Your task to perform on an android device: change the upload size in google photos Image 0: 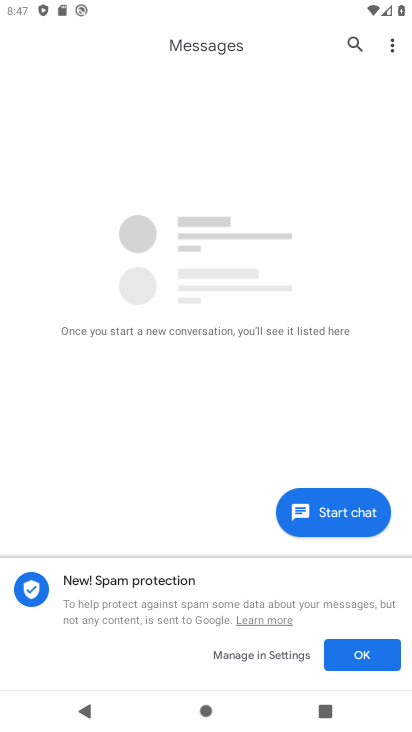
Step 0: drag from (184, 541) to (200, 331)
Your task to perform on an android device: change the upload size in google photos Image 1: 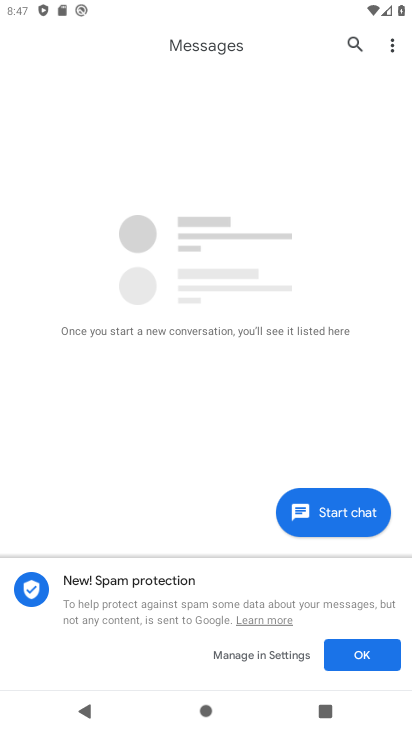
Step 1: drag from (194, 419) to (197, 275)
Your task to perform on an android device: change the upload size in google photos Image 2: 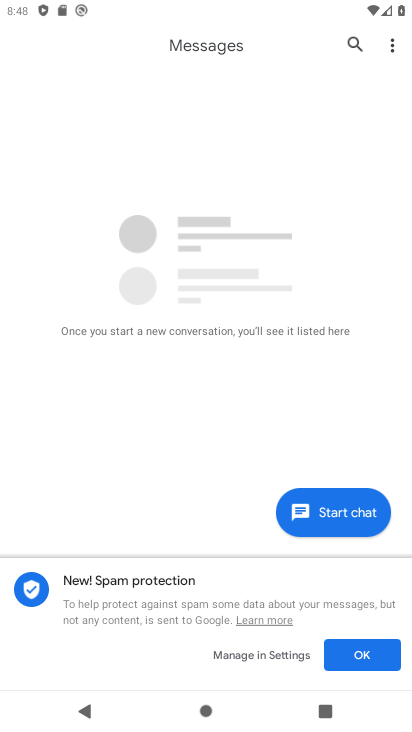
Step 2: press home button
Your task to perform on an android device: change the upload size in google photos Image 3: 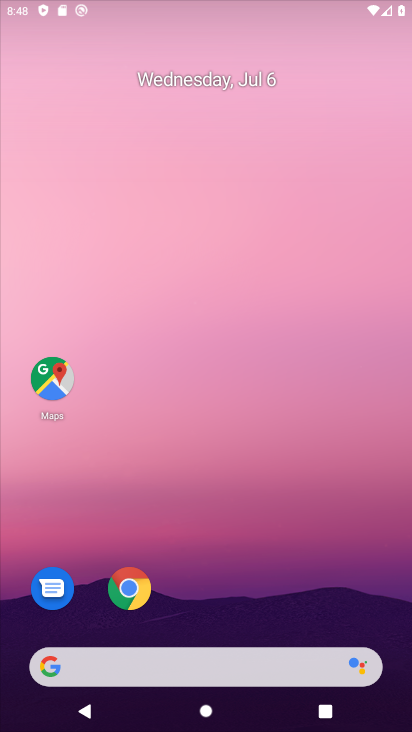
Step 3: drag from (176, 653) to (185, 13)
Your task to perform on an android device: change the upload size in google photos Image 4: 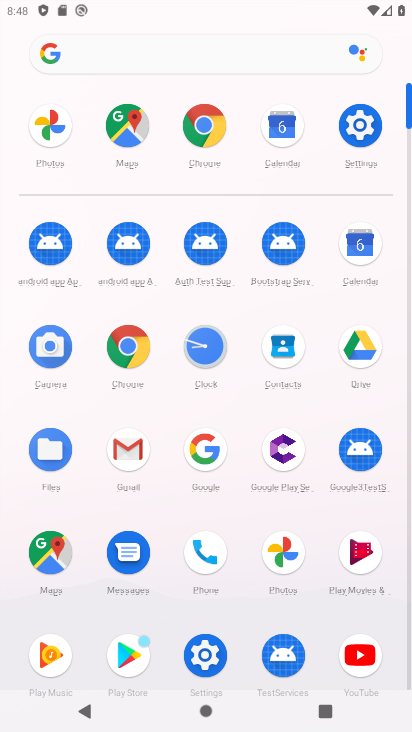
Step 4: drag from (222, 614) to (235, 242)
Your task to perform on an android device: change the upload size in google photos Image 5: 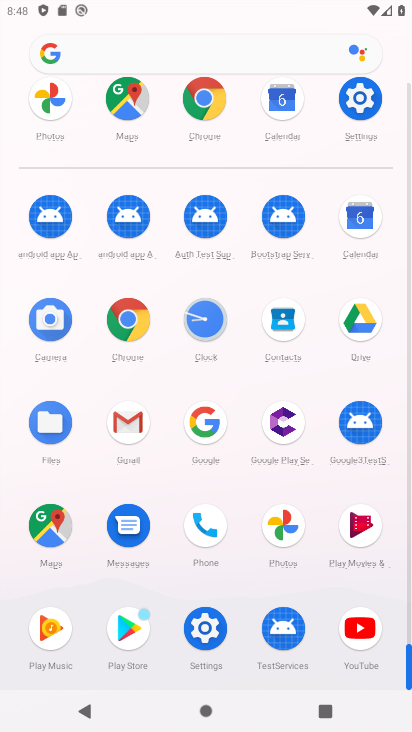
Step 5: click (287, 536)
Your task to perform on an android device: change the upload size in google photos Image 6: 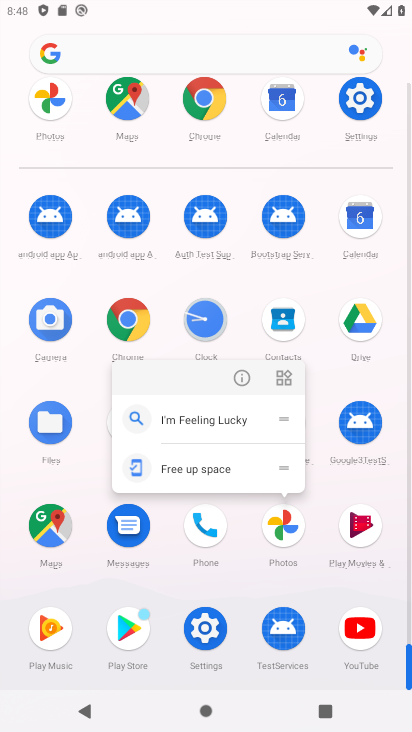
Step 6: click (243, 376)
Your task to perform on an android device: change the upload size in google photos Image 7: 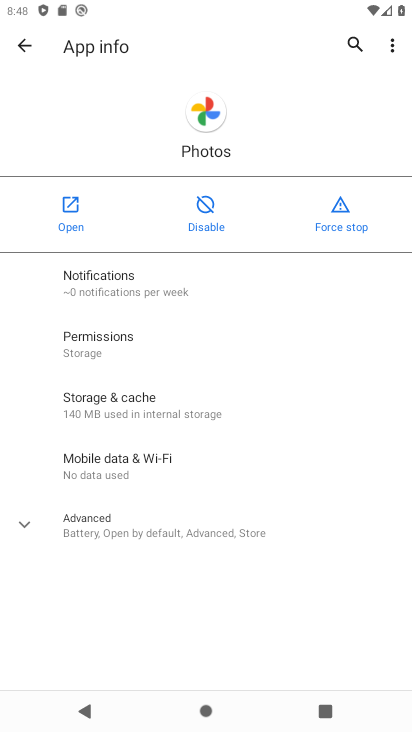
Step 7: click (74, 210)
Your task to perform on an android device: change the upload size in google photos Image 8: 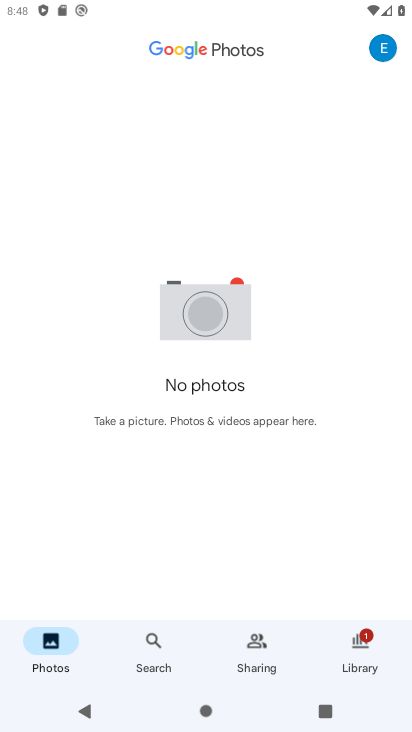
Step 8: click (383, 48)
Your task to perform on an android device: change the upload size in google photos Image 9: 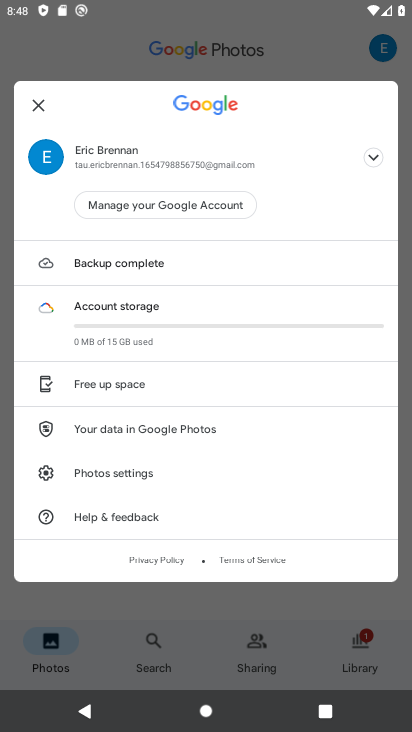
Step 9: click (41, 105)
Your task to perform on an android device: change the upload size in google photos Image 10: 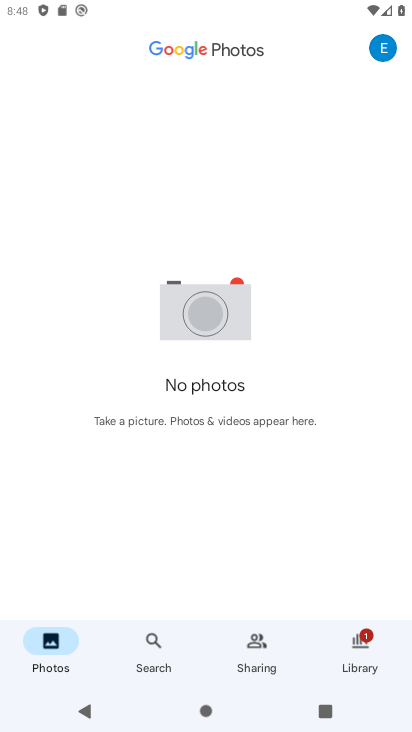
Step 10: click (386, 49)
Your task to perform on an android device: change the upload size in google photos Image 11: 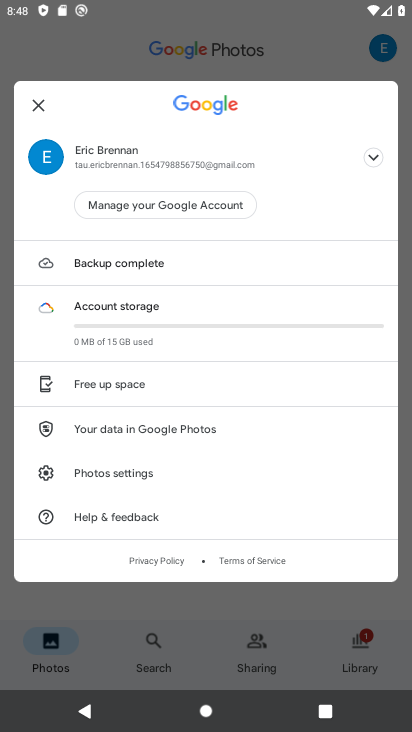
Step 11: click (127, 475)
Your task to perform on an android device: change the upload size in google photos Image 12: 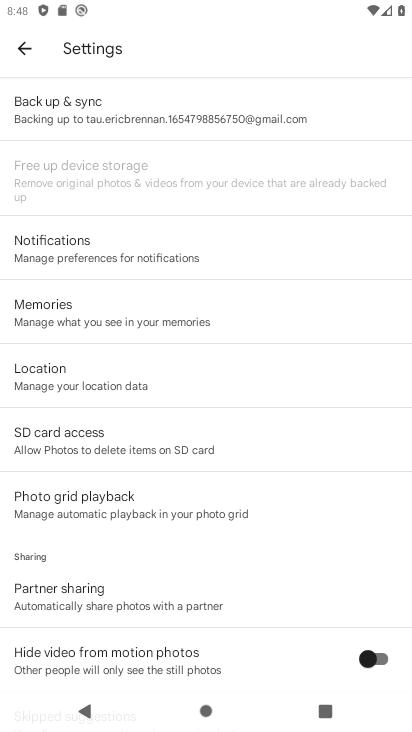
Step 12: click (190, 113)
Your task to perform on an android device: change the upload size in google photos Image 13: 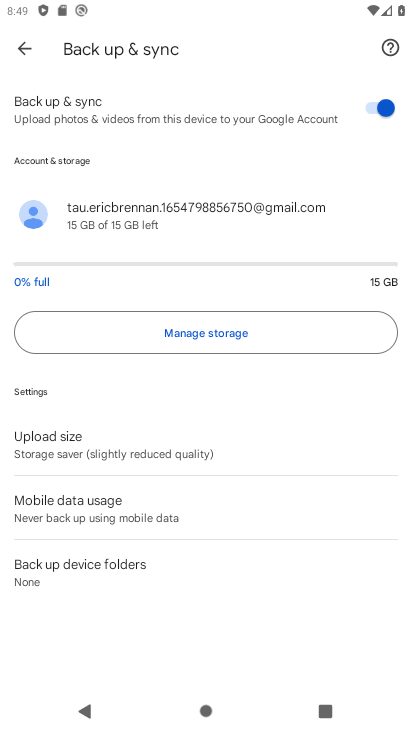
Step 13: drag from (242, 550) to (290, 289)
Your task to perform on an android device: change the upload size in google photos Image 14: 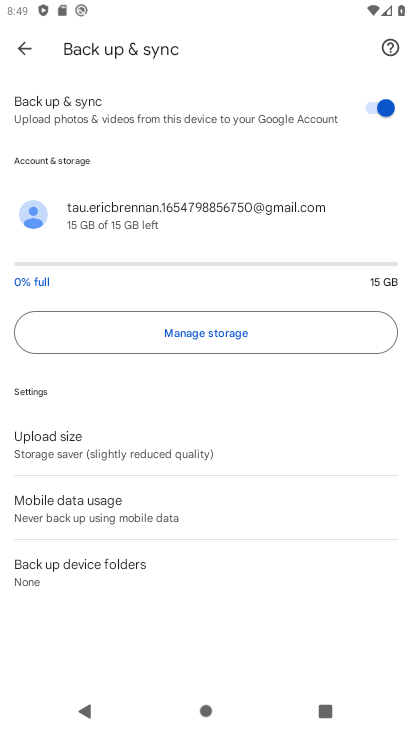
Step 14: click (64, 434)
Your task to perform on an android device: change the upload size in google photos Image 15: 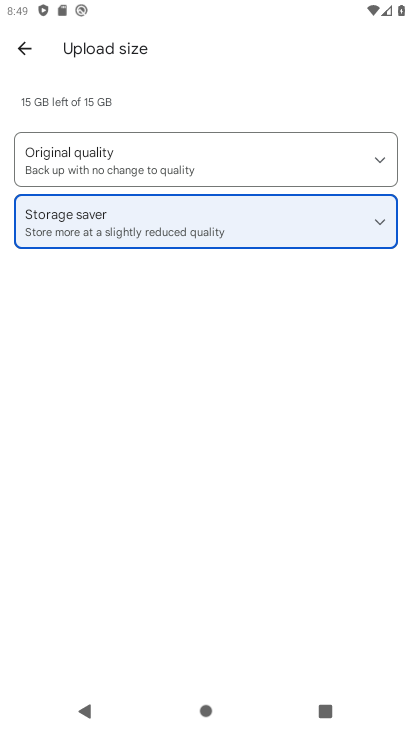
Step 15: click (299, 168)
Your task to perform on an android device: change the upload size in google photos Image 16: 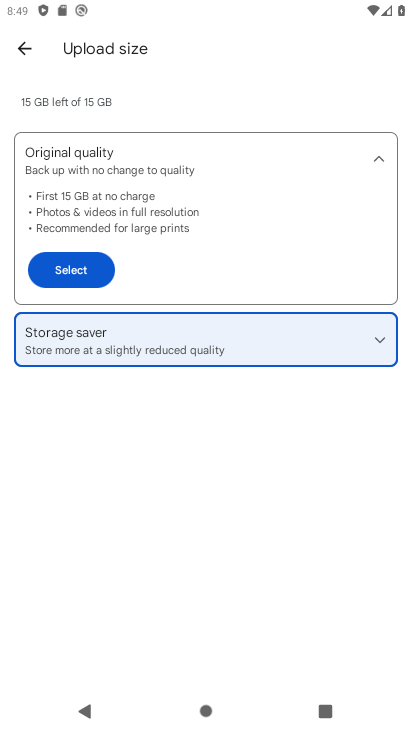
Step 16: click (88, 270)
Your task to perform on an android device: change the upload size in google photos Image 17: 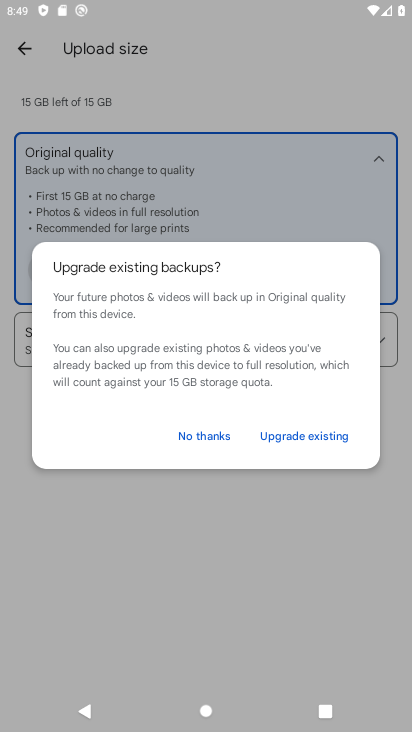
Step 17: click (191, 443)
Your task to perform on an android device: change the upload size in google photos Image 18: 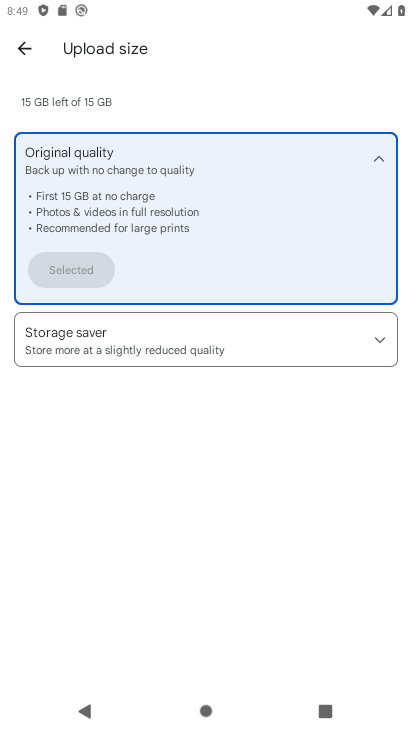
Step 18: task complete